Your task to perform on an android device: Open Android settings Image 0: 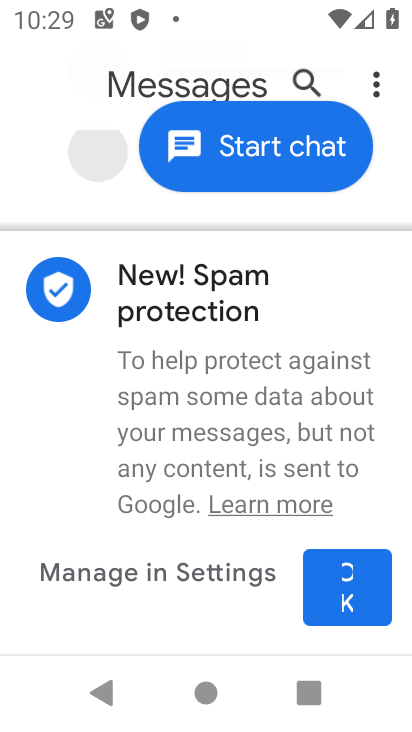
Step 0: press home button
Your task to perform on an android device: Open Android settings Image 1: 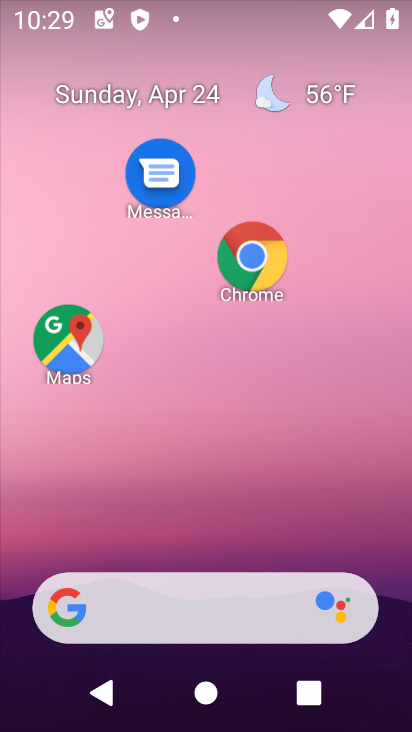
Step 1: drag from (230, 724) to (202, 97)
Your task to perform on an android device: Open Android settings Image 2: 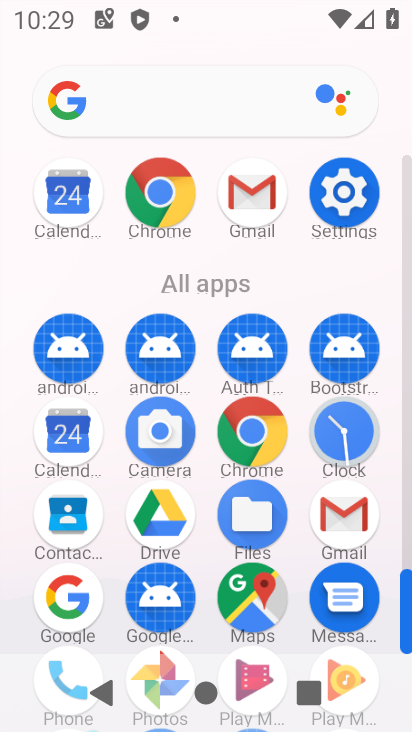
Step 2: click (345, 192)
Your task to perform on an android device: Open Android settings Image 3: 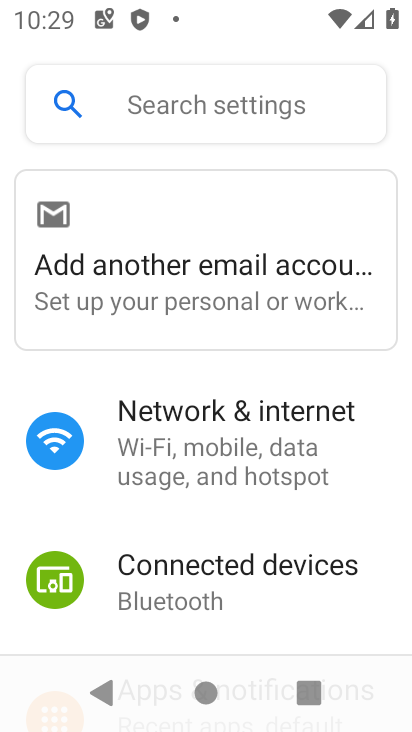
Step 3: drag from (261, 635) to (258, 81)
Your task to perform on an android device: Open Android settings Image 4: 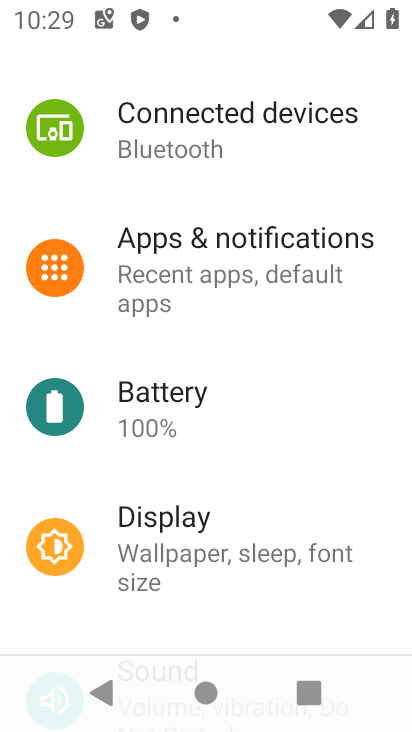
Step 4: drag from (274, 496) to (275, 169)
Your task to perform on an android device: Open Android settings Image 5: 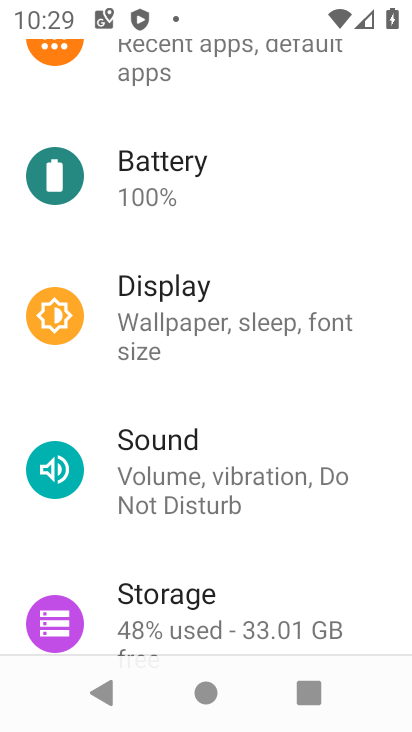
Step 5: drag from (263, 621) to (266, 63)
Your task to perform on an android device: Open Android settings Image 6: 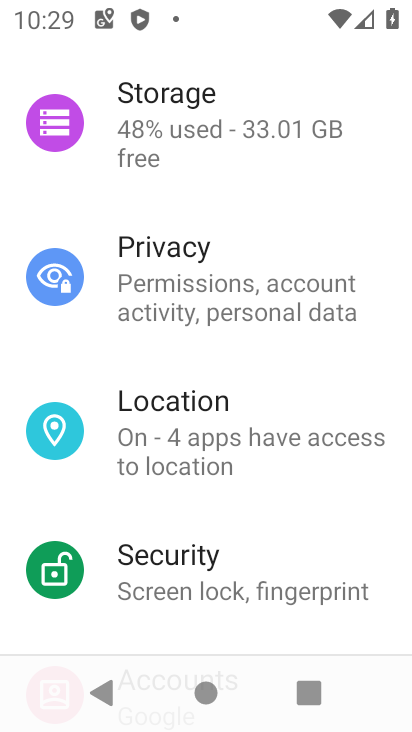
Step 6: drag from (245, 627) to (249, 138)
Your task to perform on an android device: Open Android settings Image 7: 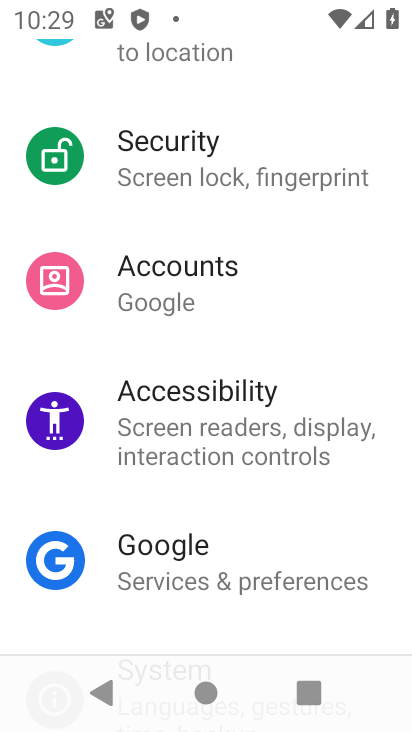
Step 7: drag from (231, 622) to (247, 61)
Your task to perform on an android device: Open Android settings Image 8: 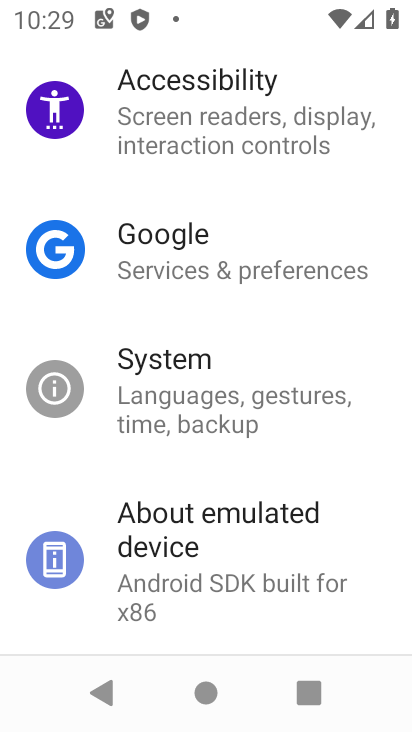
Step 8: click (162, 551)
Your task to perform on an android device: Open Android settings Image 9: 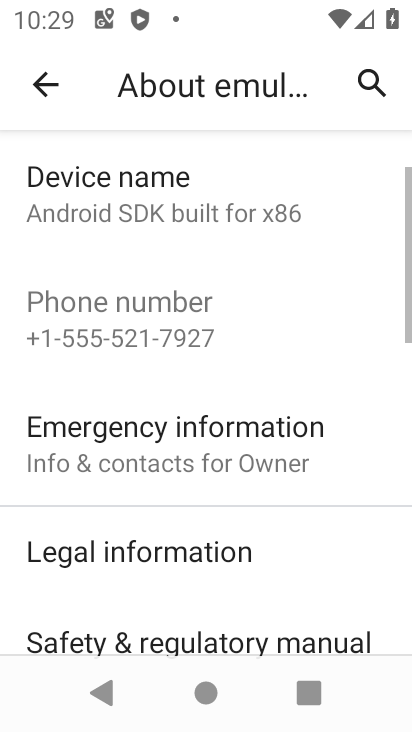
Step 9: drag from (147, 626) to (188, 177)
Your task to perform on an android device: Open Android settings Image 10: 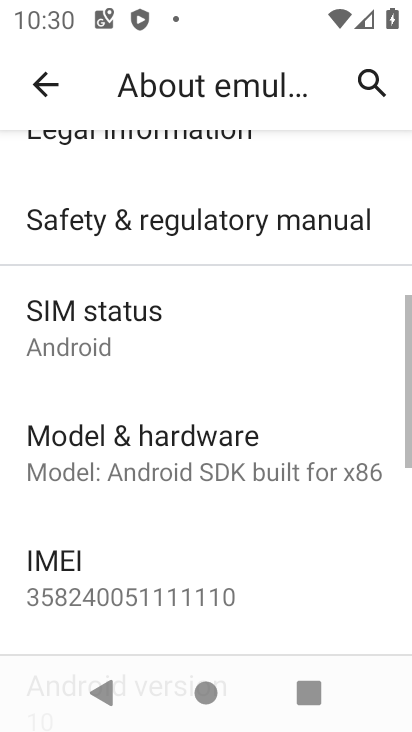
Step 10: drag from (182, 622) to (187, 124)
Your task to perform on an android device: Open Android settings Image 11: 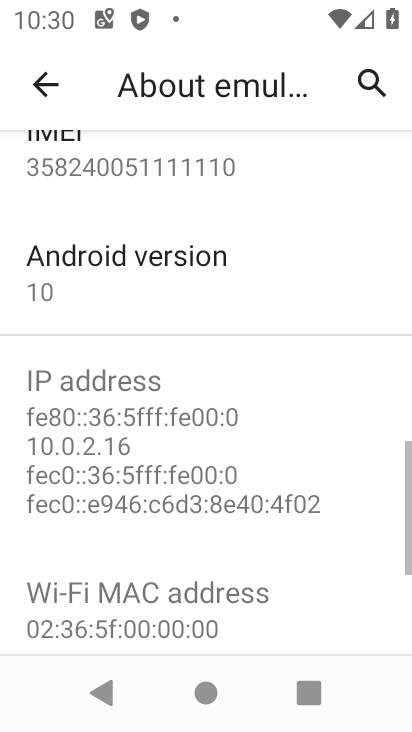
Step 11: click (64, 246)
Your task to perform on an android device: Open Android settings Image 12: 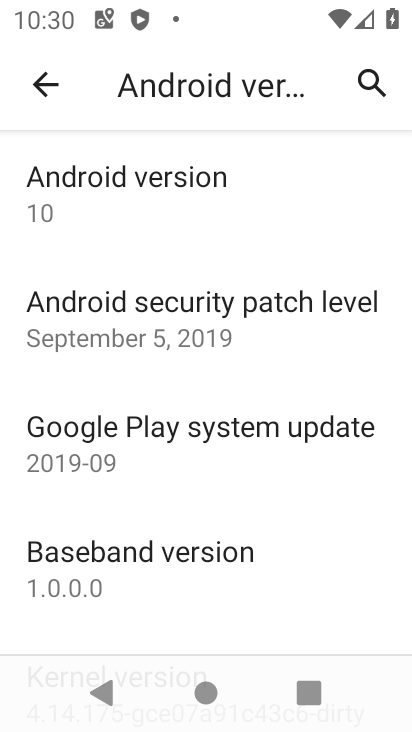
Step 12: task complete